Your task to perform on an android device: Search for hotels in Mexico city Image 0: 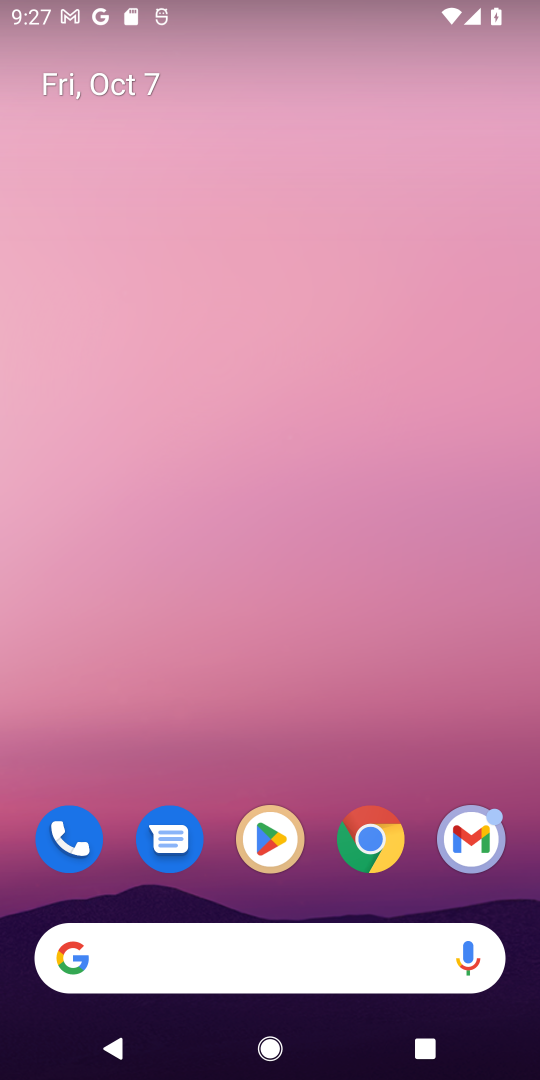
Step 0: click (374, 847)
Your task to perform on an android device: Search for hotels in Mexico city Image 1: 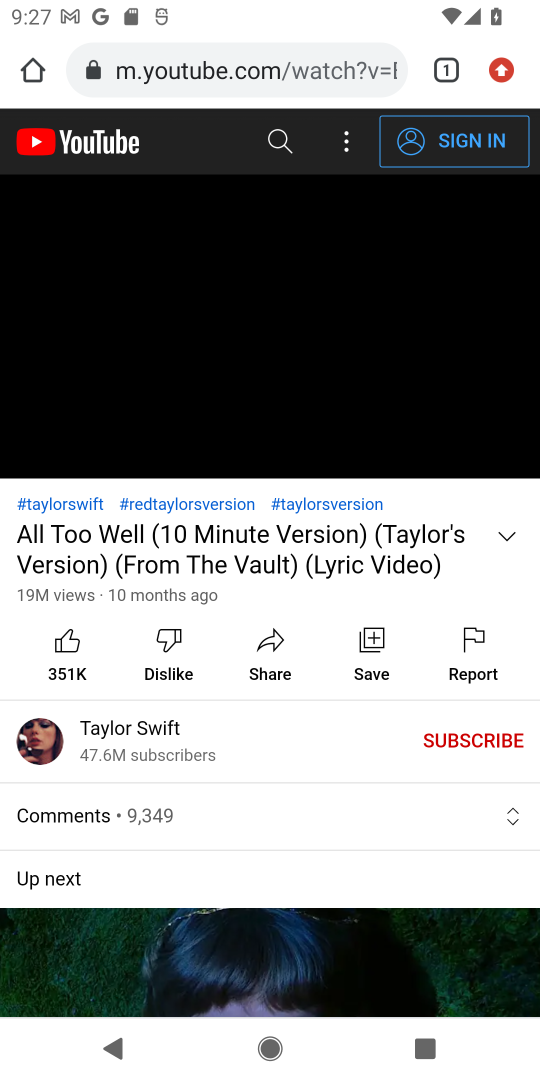
Step 1: click (263, 65)
Your task to perform on an android device: Search for hotels in Mexico city Image 2: 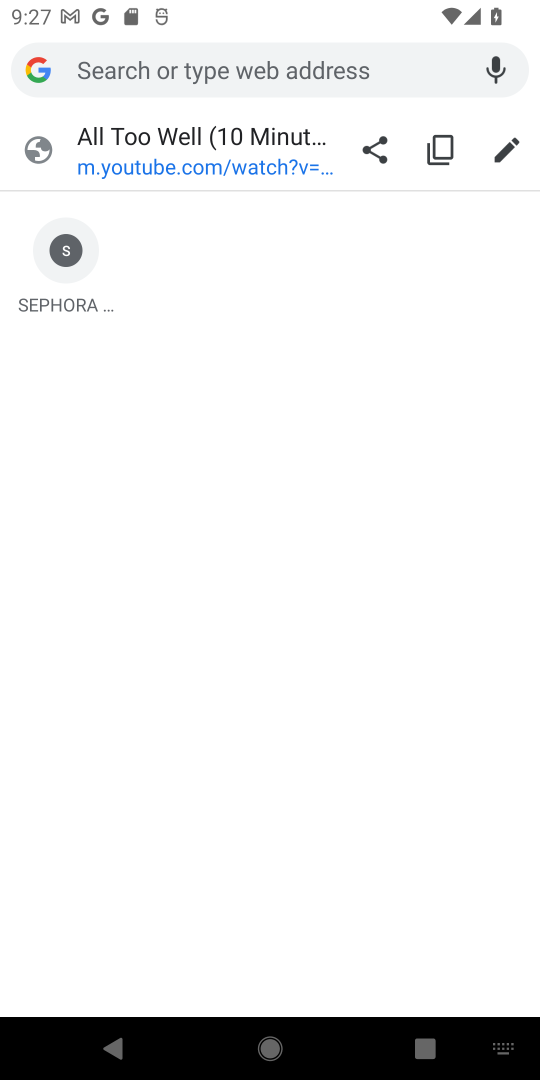
Step 2: type "mexico city"
Your task to perform on an android device: Search for hotels in Mexico city Image 3: 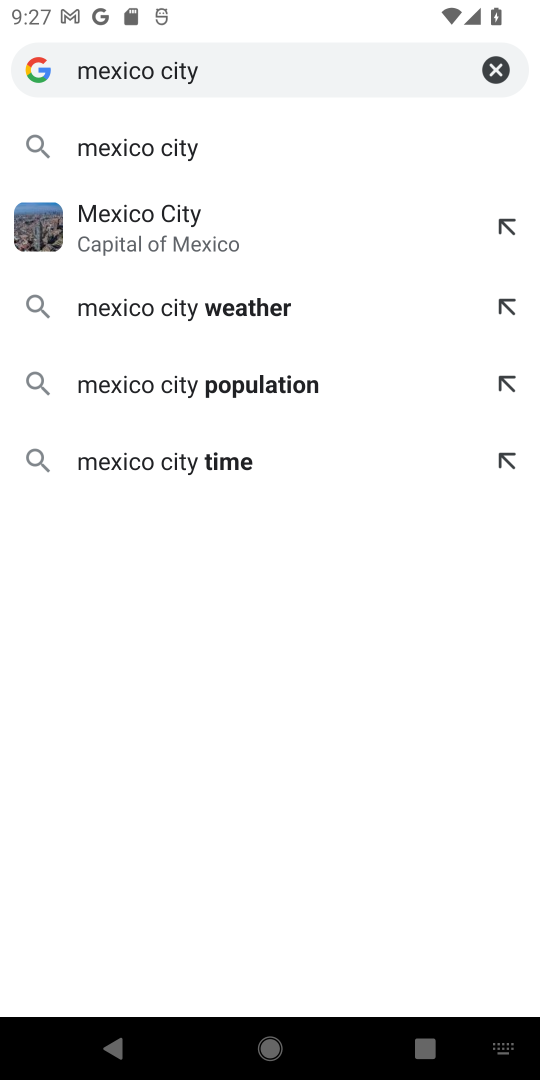
Step 3: click (156, 229)
Your task to perform on an android device: Search for hotels in Mexico city Image 4: 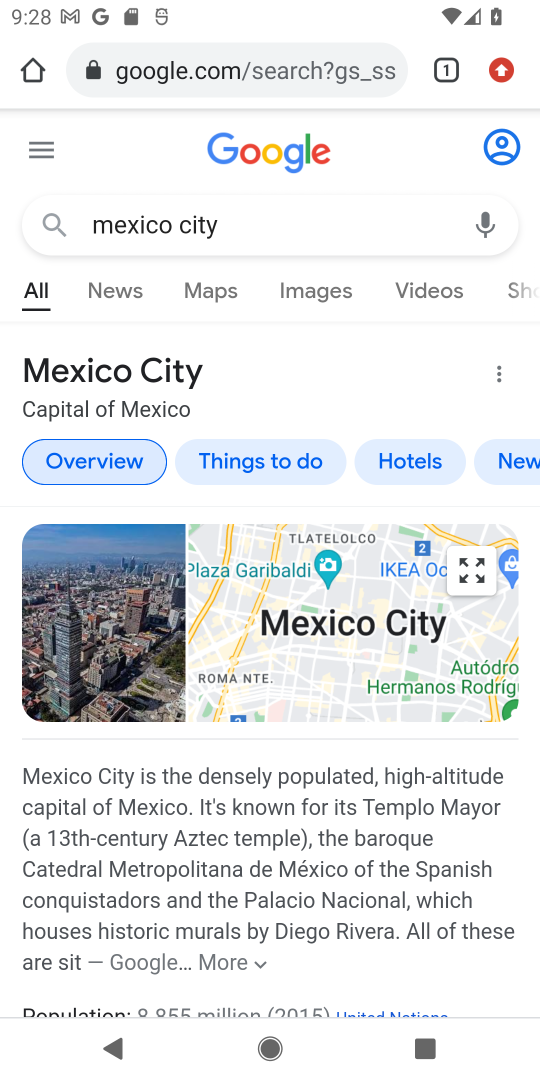
Step 4: drag from (375, 893) to (382, 1046)
Your task to perform on an android device: Search for hotels in Mexico city Image 5: 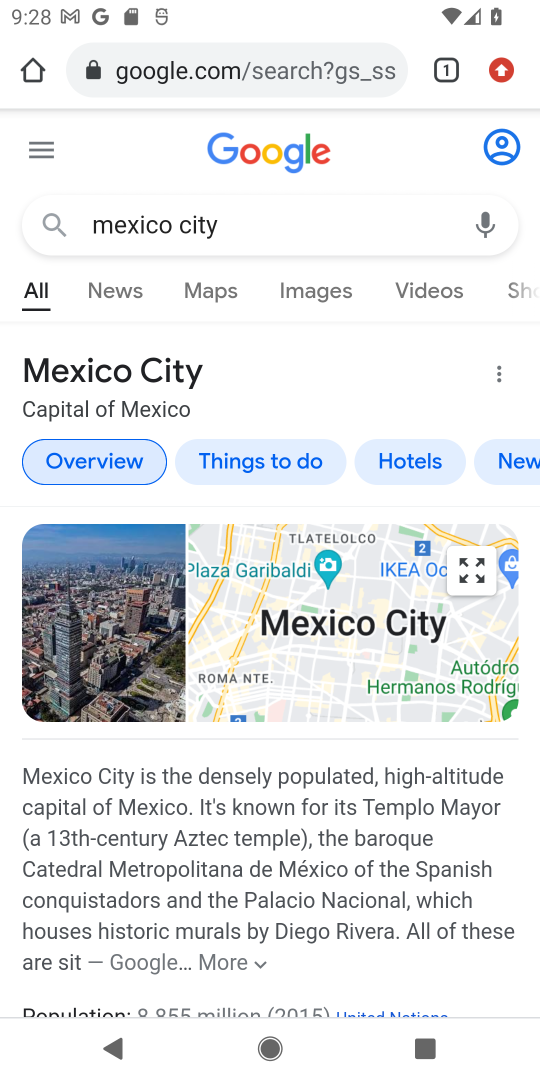
Step 5: click (433, 461)
Your task to perform on an android device: Search for hotels in Mexico city Image 6: 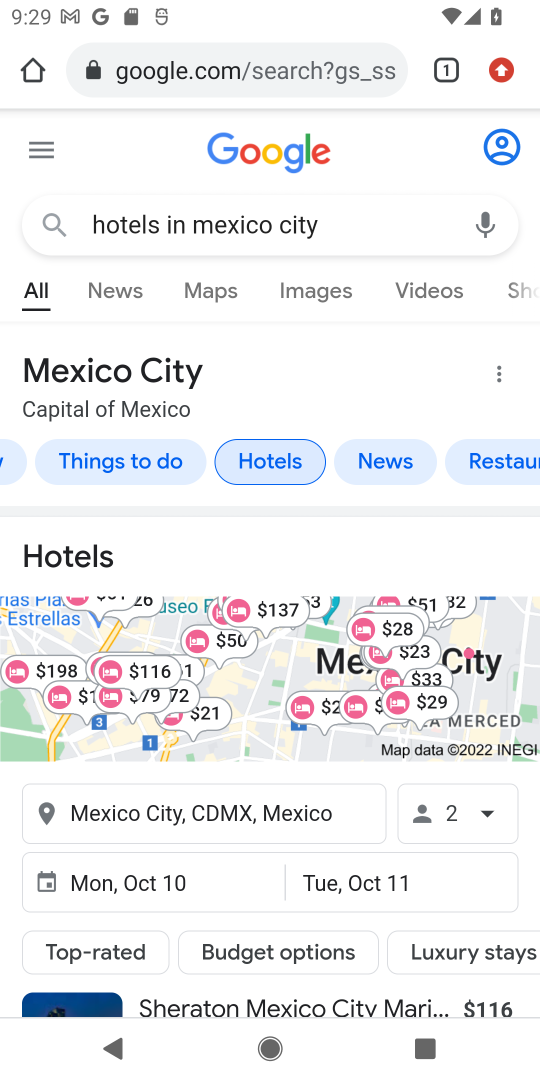
Step 6: task complete